Your task to perform on an android device: What is the recent news? Image 0: 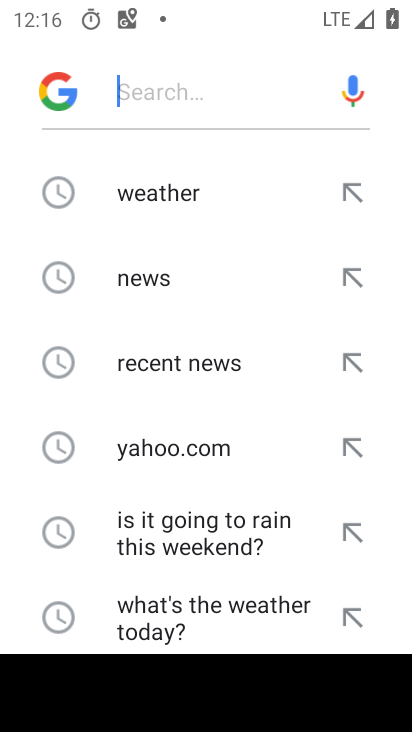
Step 0: press home button
Your task to perform on an android device: What is the recent news? Image 1: 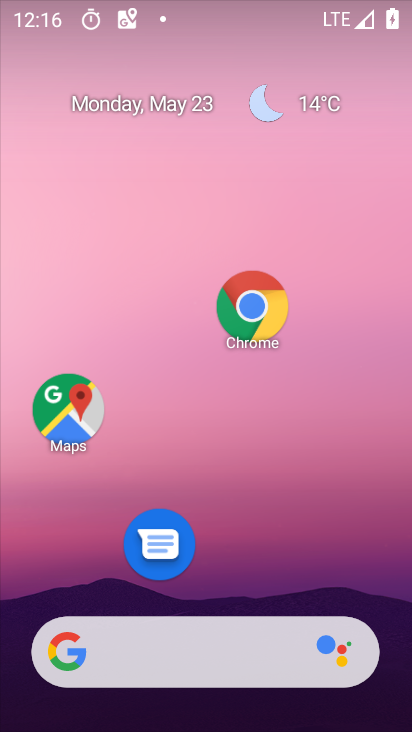
Step 1: drag from (237, 595) to (260, 230)
Your task to perform on an android device: What is the recent news? Image 2: 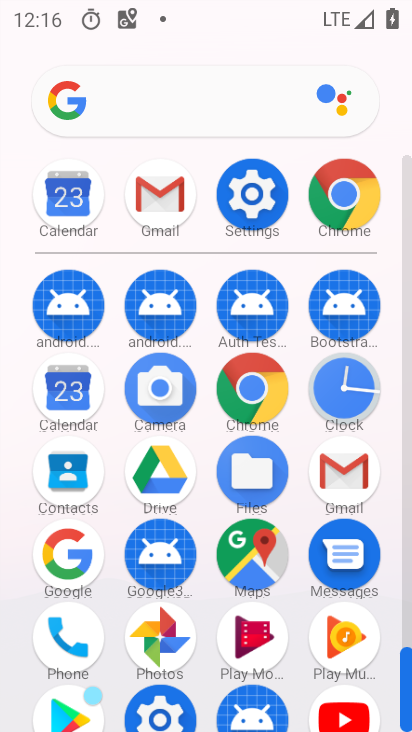
Step 2: click (247, 209)
Your task to perform on an android device: What is the recent news? Image 3: 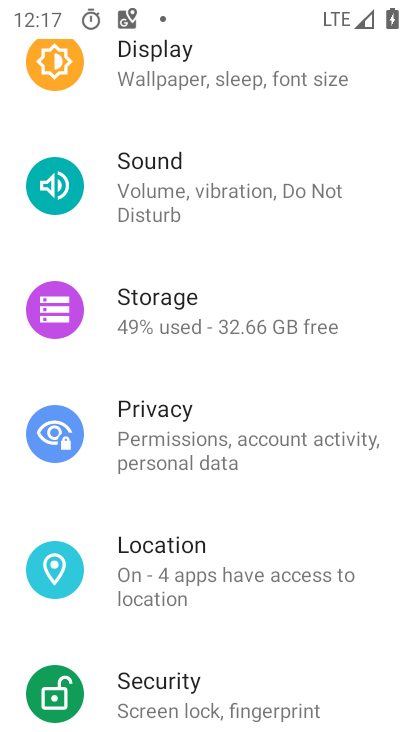
Step 3: press home button
Your task to perform on an android device: What is the recent news? Image 4: 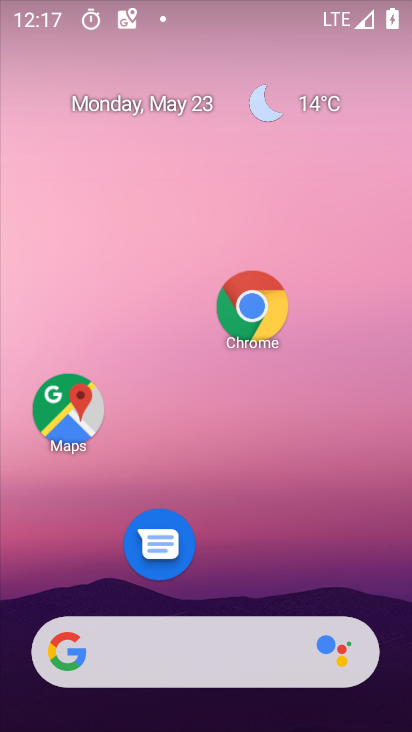
Step 4: drag from (276, 604) to (260, 254)
Your task to perform on an android device: What is the recent news? Image 5: 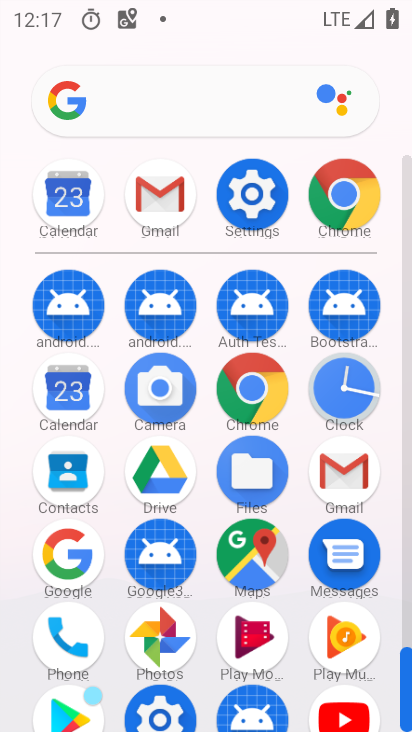
Step 5: click (77, 577)
Your task to perform on an android device: What is the recent news? Image 6: 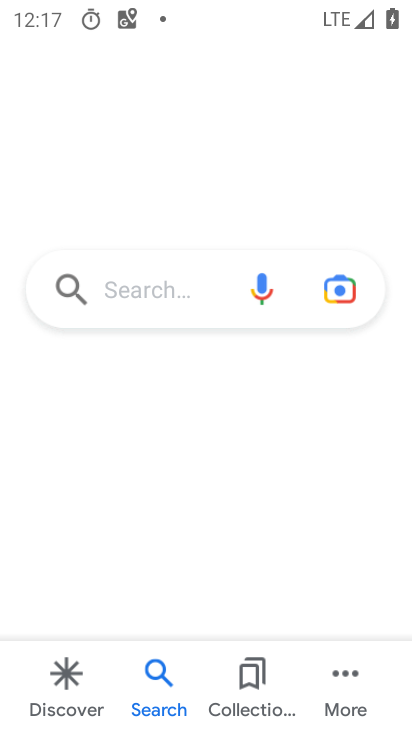
Step 6: click (171, 290)
Your task to perform on an android device: What is the recent news? Image 7: 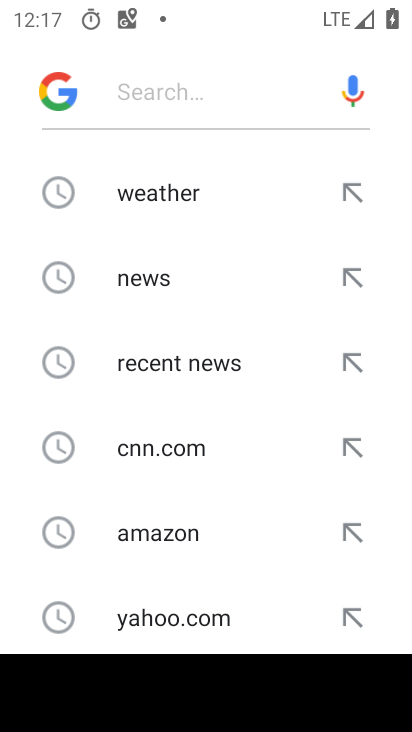
Step 7: click (178, 209)
Your task to perform on an android device: What is the recent news? Image 8: 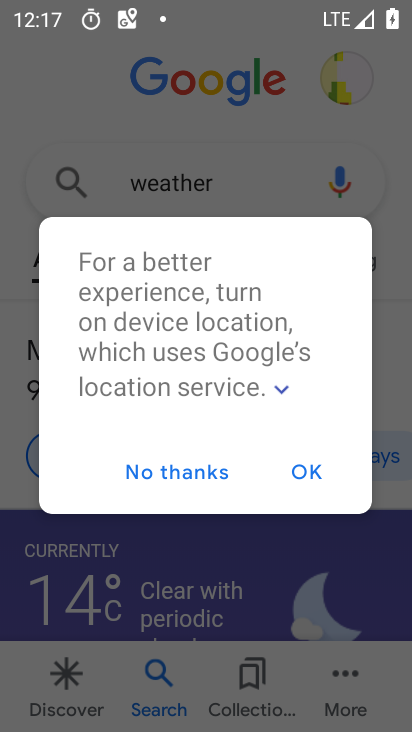
Step 8: click (187, 474)
Your task to perform on an android device: What is the recent news? Image 9: 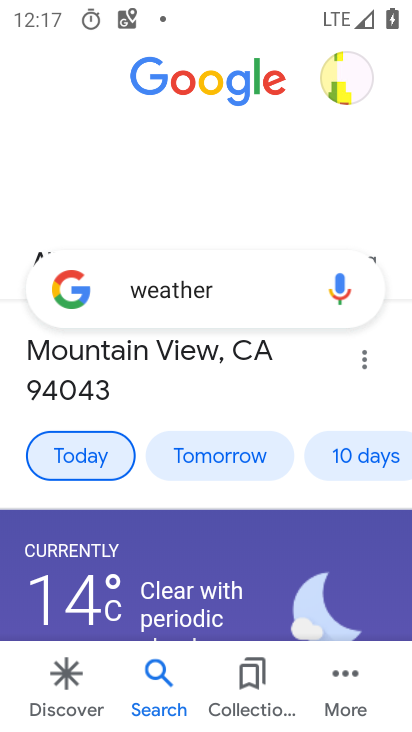
Step 9: drag from (248, 624) to (310, 339)
Your task to perform on an android device: What is the recent news? Image 10: 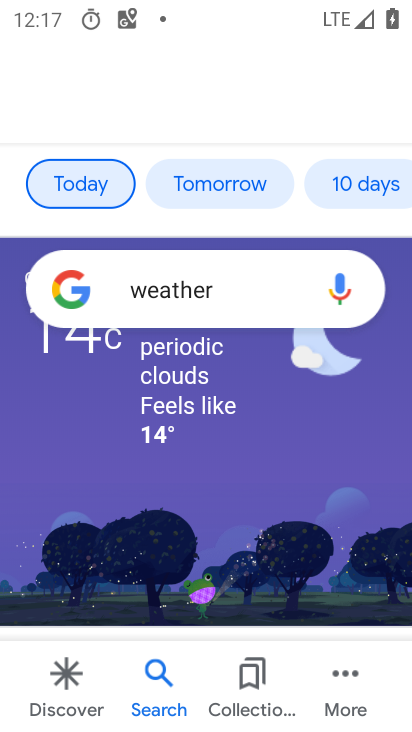
Step 10: click (227, 286)
Your task to perform on an android device: What is the recent news? Image 11: 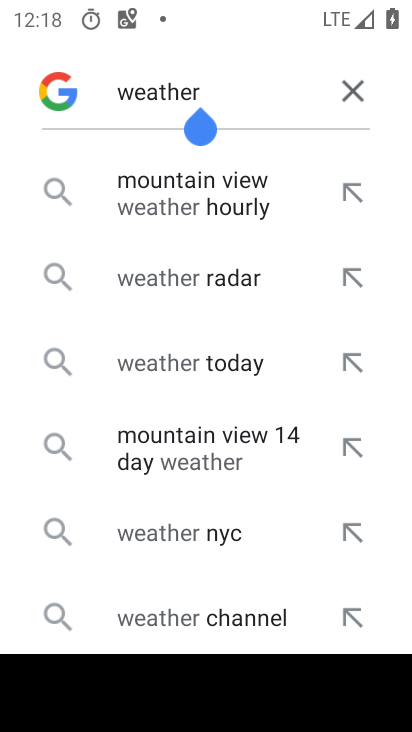
Step 11: click (353, 87)
Your task to perform on an android device: What is the recent news? Image 12: 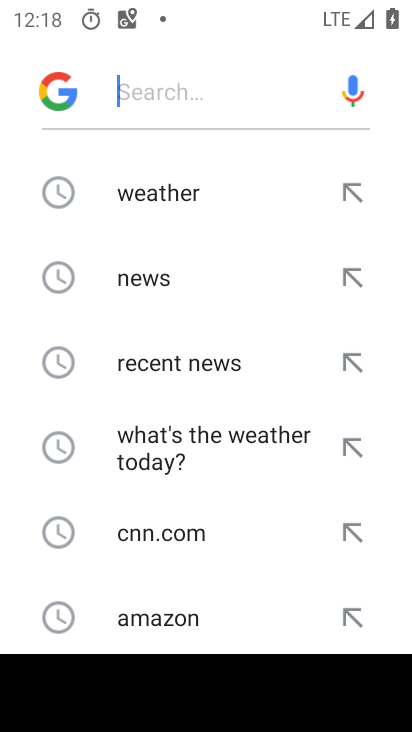
Step 12: click (162, 362)
Your task to perform on an android device: What is the recent news? Image 13: 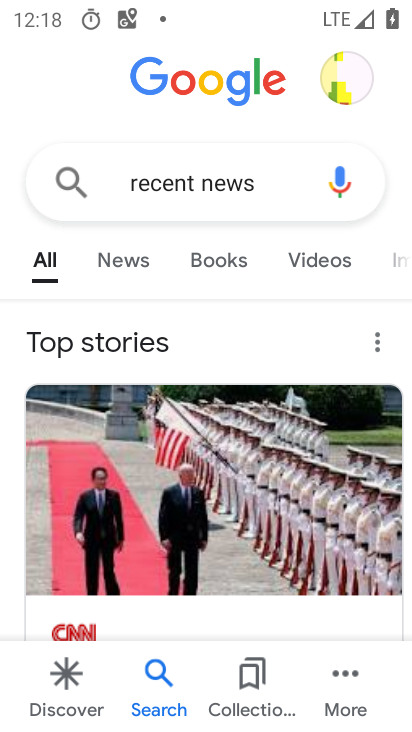
Step 13: task complete